Your task to perform on an android device: Open network settings Image 0: 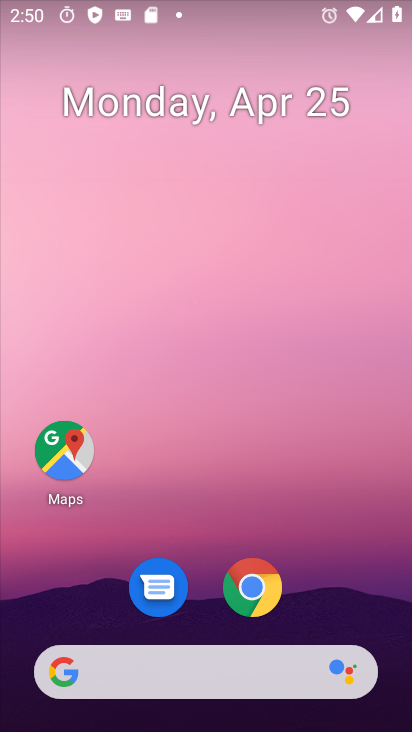
Step 0: drag from (343, 497) to (313, 123)
Your task to perform on an android device: Open network settings Image 1: 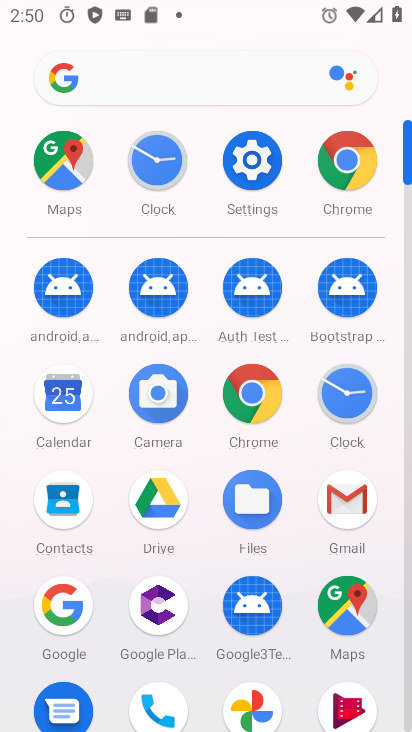
Step 1: click (252, 171)
Your task to perform on an android device: Open network settings Image 2: 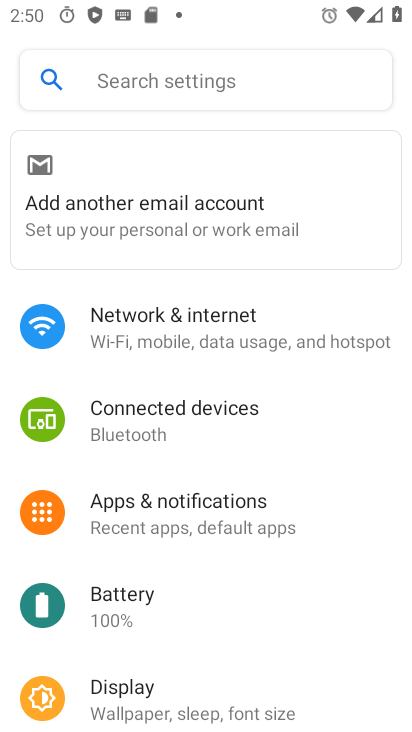
Step 2: click (174, 323)
Your task to perform on an android device: Open network settings Image 3: 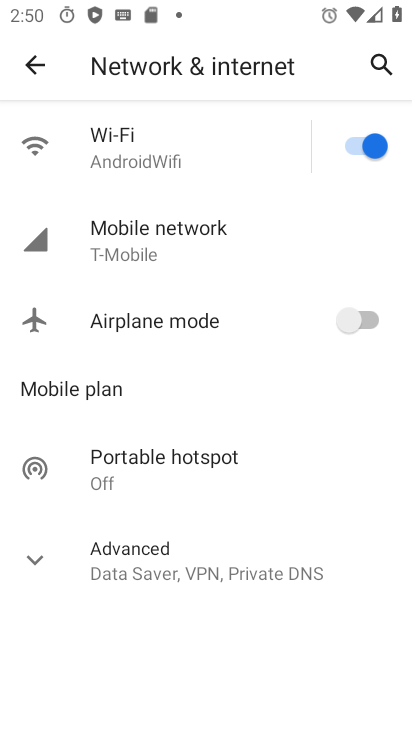
Step 3: task complete